Your task to perform on an android device: Add "corsair k70" to the cart on walmart Image 0: 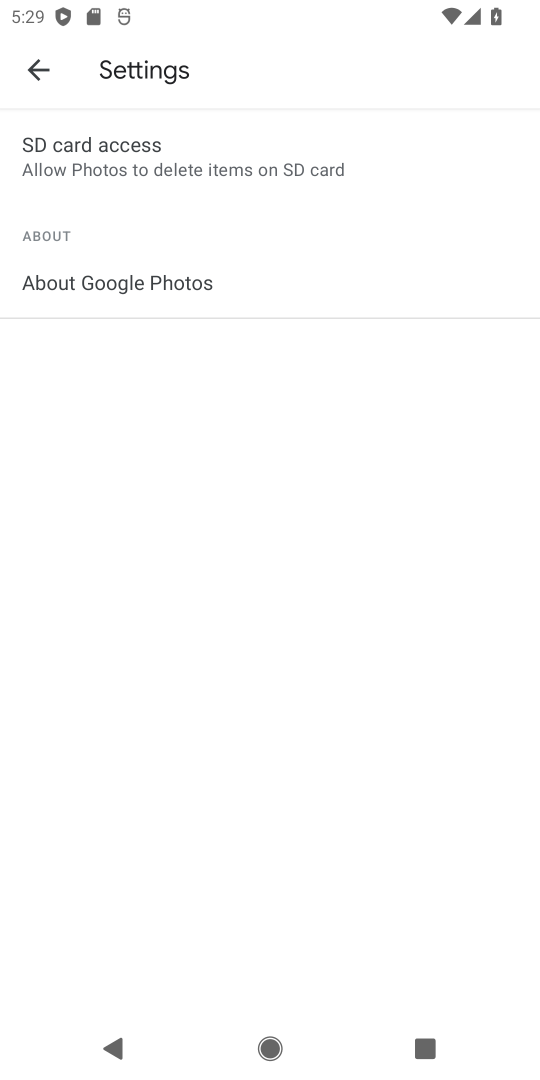
Step 0: press home button
Your task to perform on an android device: Add "corsair k70" to the cart on walmart Image 1: 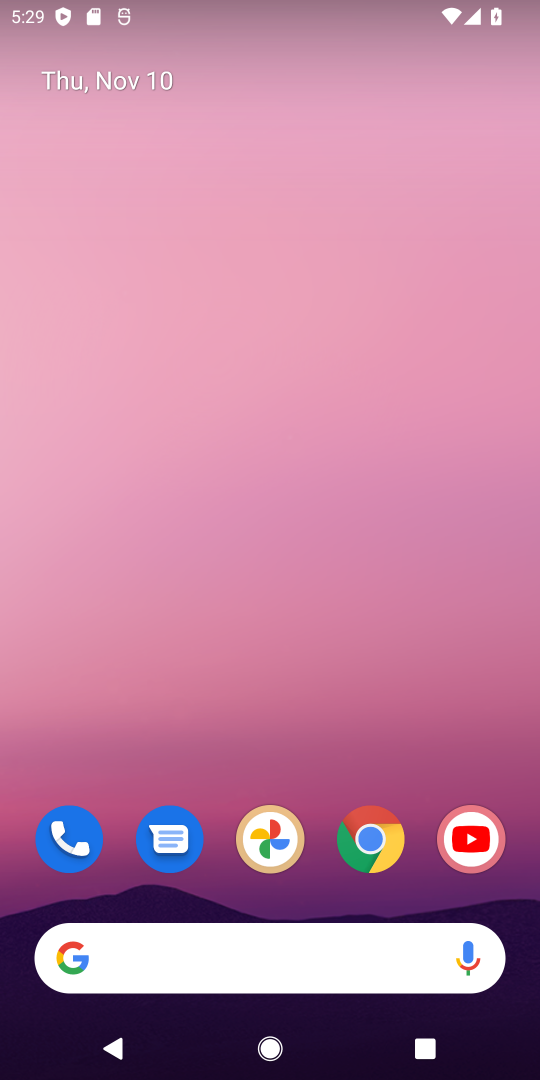
Step 1: click (370, 837)
Your task to perform on an android device: Add "corsair k70" to the cart on walmart Image 2: 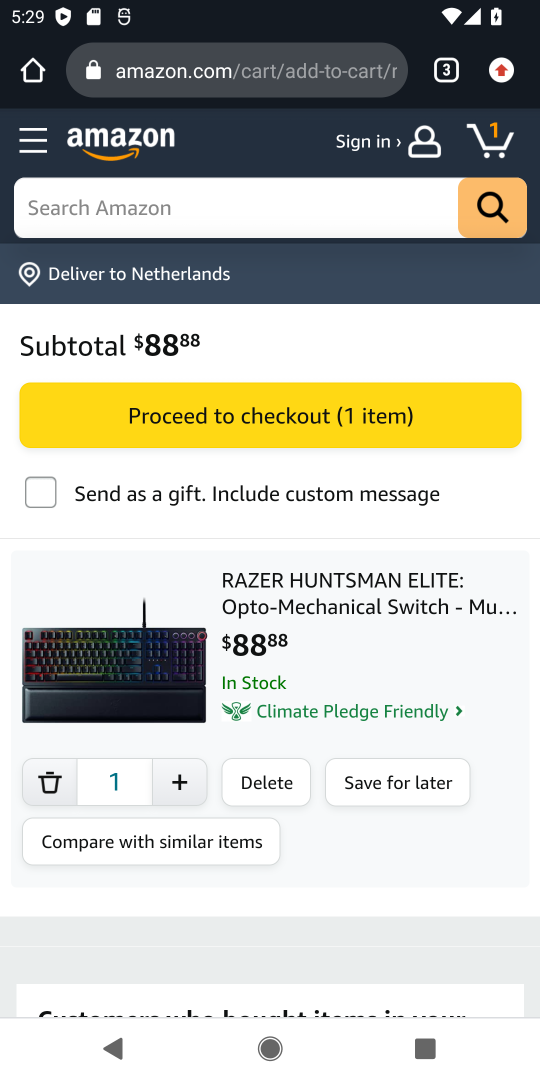
Step 2: click (445, 73)
Your task to perform on an android device: Add "corsair k70" to the cart on walmart Image 3: 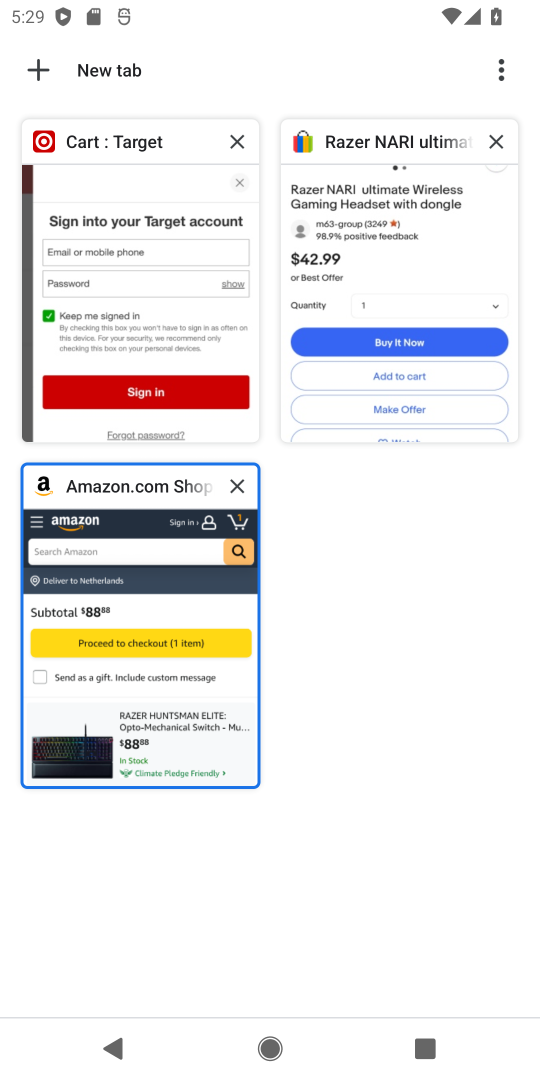
Step 3: click (36, 70)
Your task to perform on an android device: Add "corsair k70" to the cart on walmart Image 4: 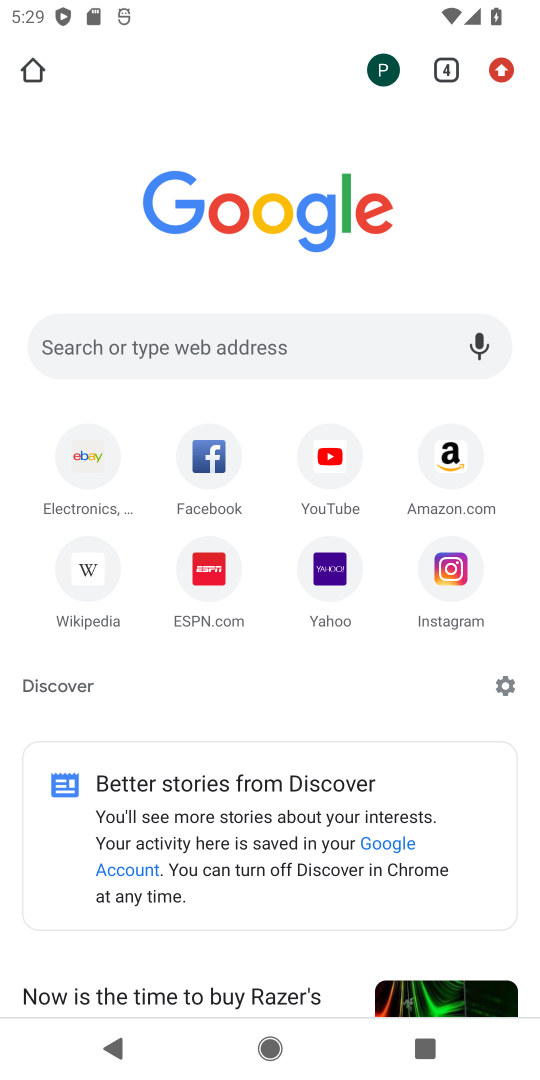
Step 4: click (199, 341)
Your task to perform on an android device: Add "corsair k70" to the cart on walmart Image 5: 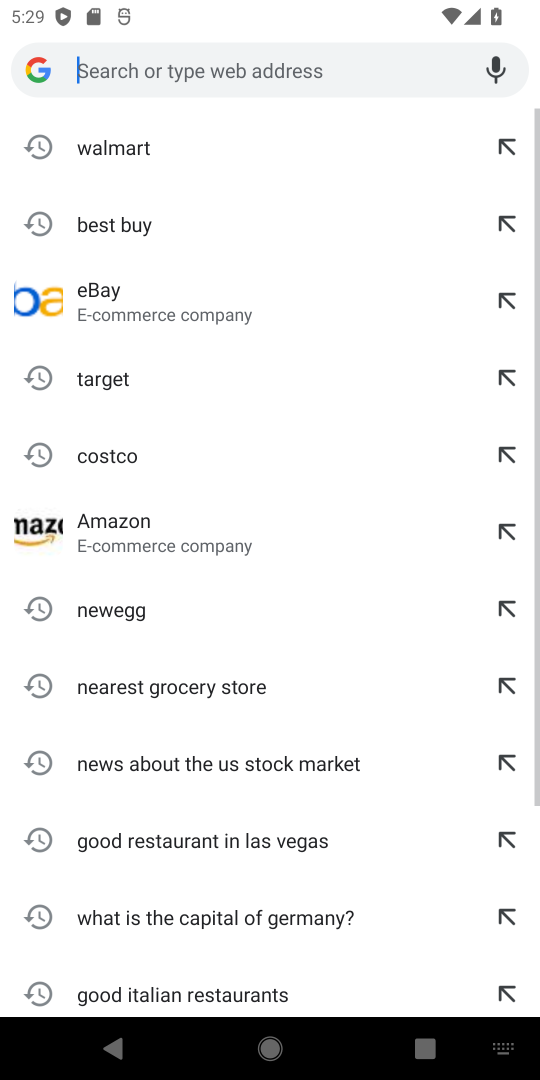
Step 5: click (123, 150)
Your task to perform on an android device: Add "corsair k70" to the cart on walmart Image 6: 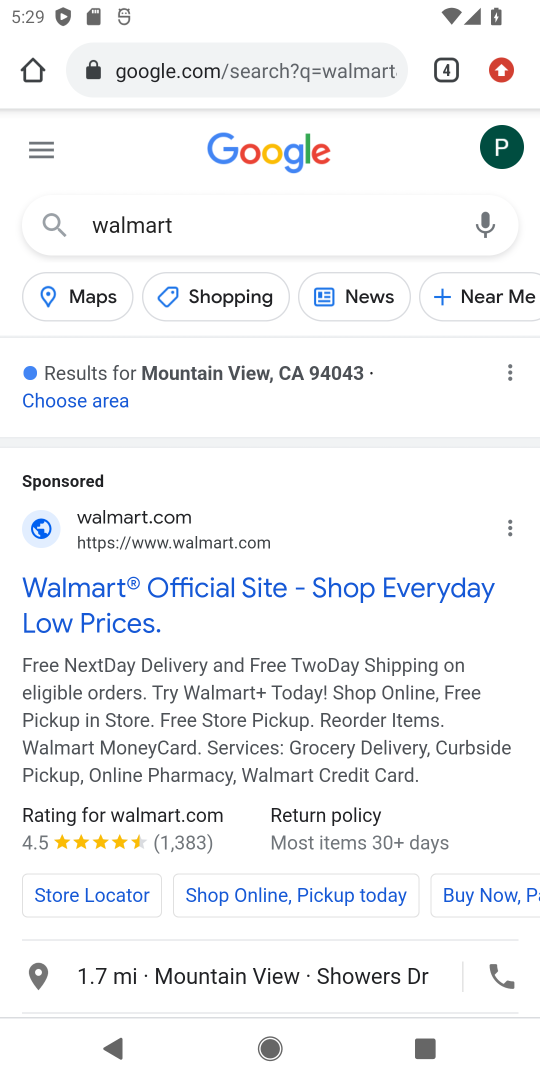
Step 6: click (102, 592)
Your task to perform on an android device: Add "corsair k70" to the cart on walmart Image 7: 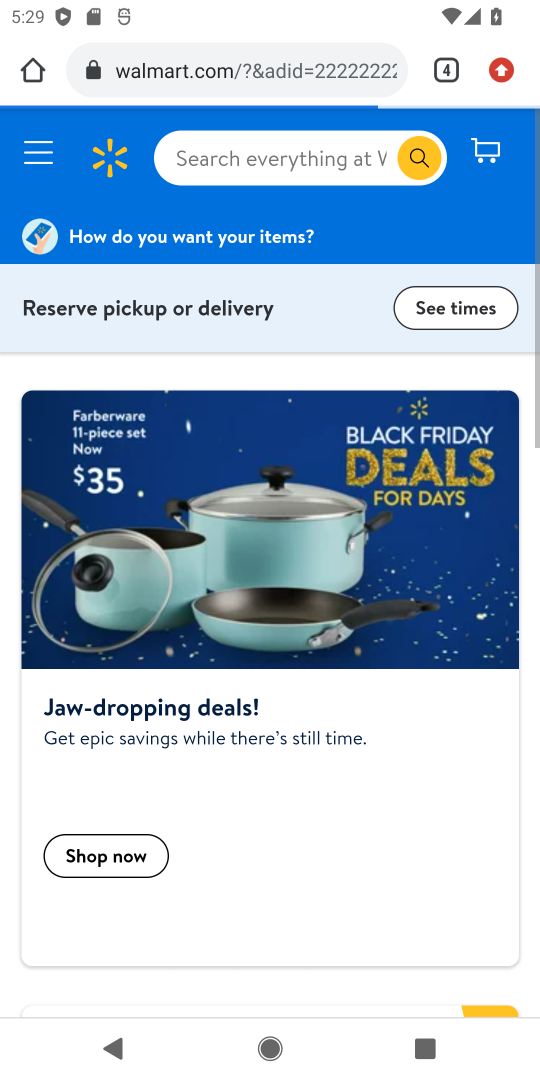
Step 7: click (209, 163)
Your task to perform on an android device: Add "corsair k70" to the cart on walmart Image 8: 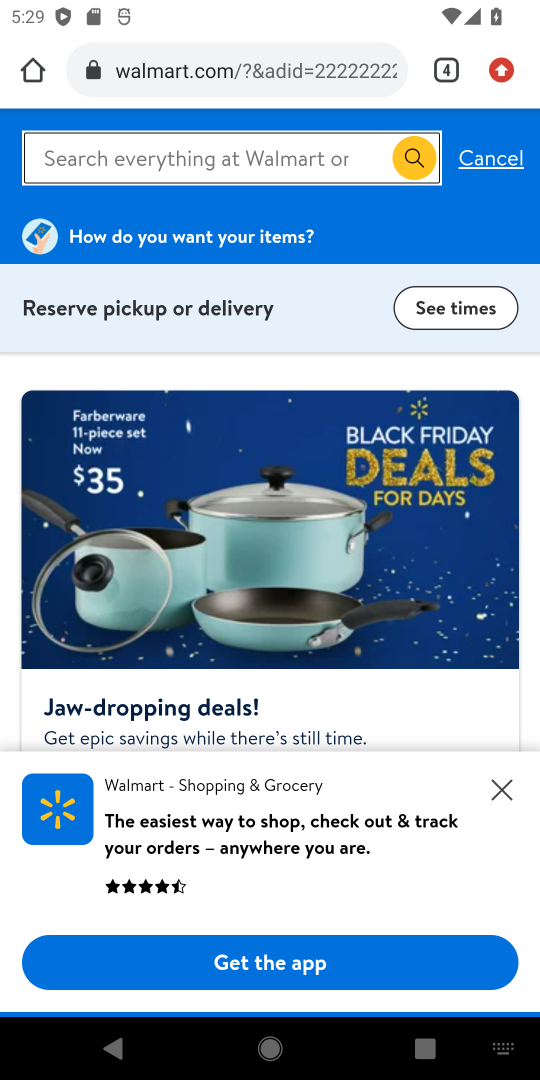
Step 8: type "corsair k70"
Your task to perform on an android device: Add "corsair k70" to the cart on walmart Image 9: 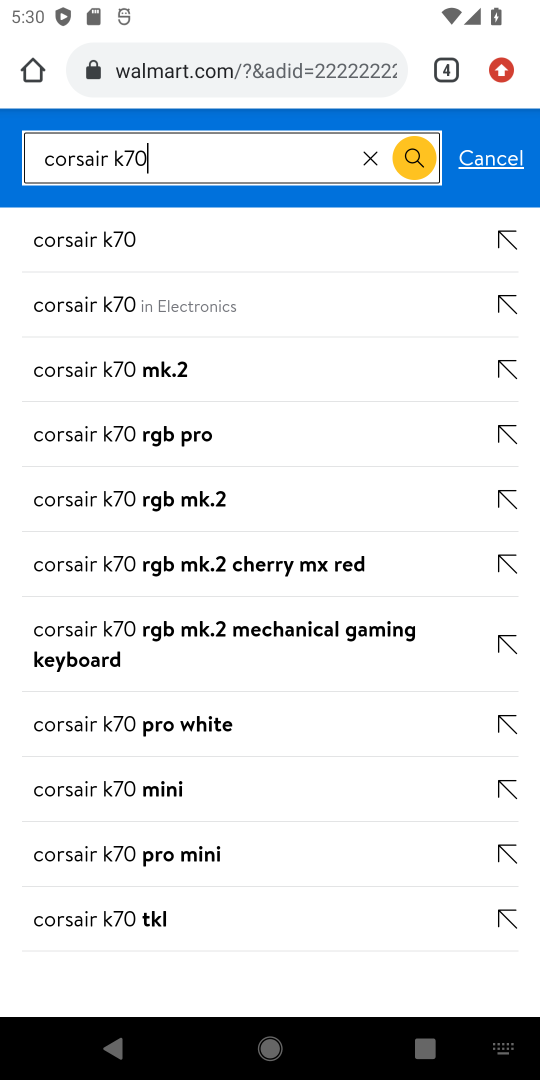
Step 9: click (112, 294)
Your task to perform on an android device: Add "corsair k70" to the cart on walmart Image 10: 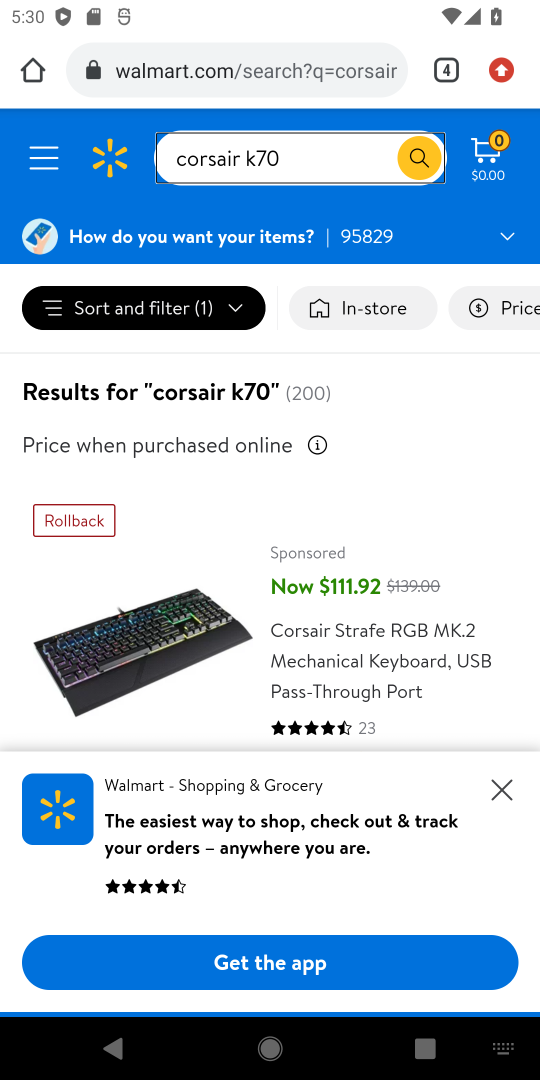
Step 10: click (499, 793)
Your task to perform on an android device: Add "corsair k70" to the cart on walmart Image 11: 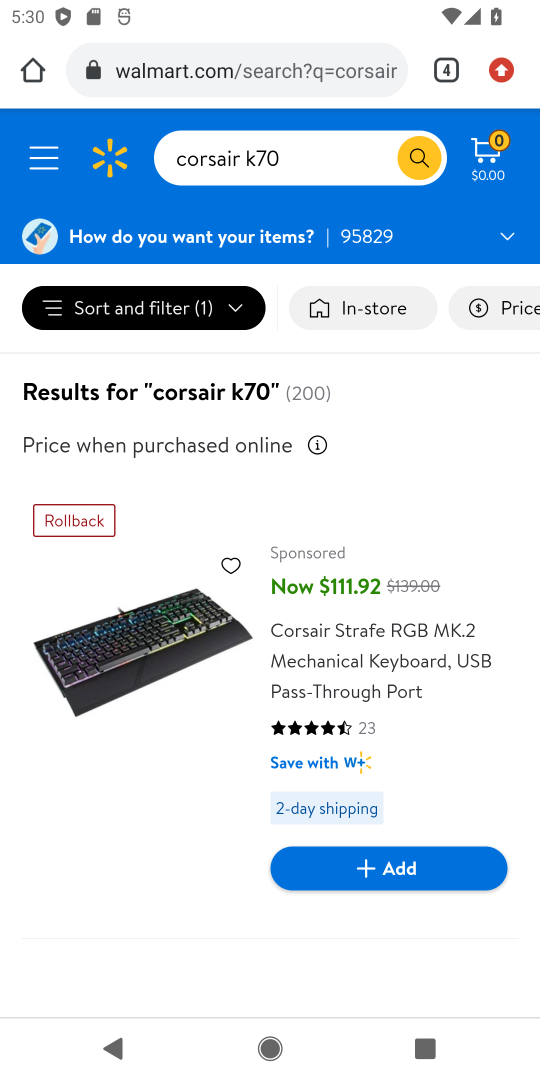
Step 11: drag from (499, 793) to (521, 364)
Your task to perform on an android device: Add "corsair k70" to the cart on walmart Image 12: 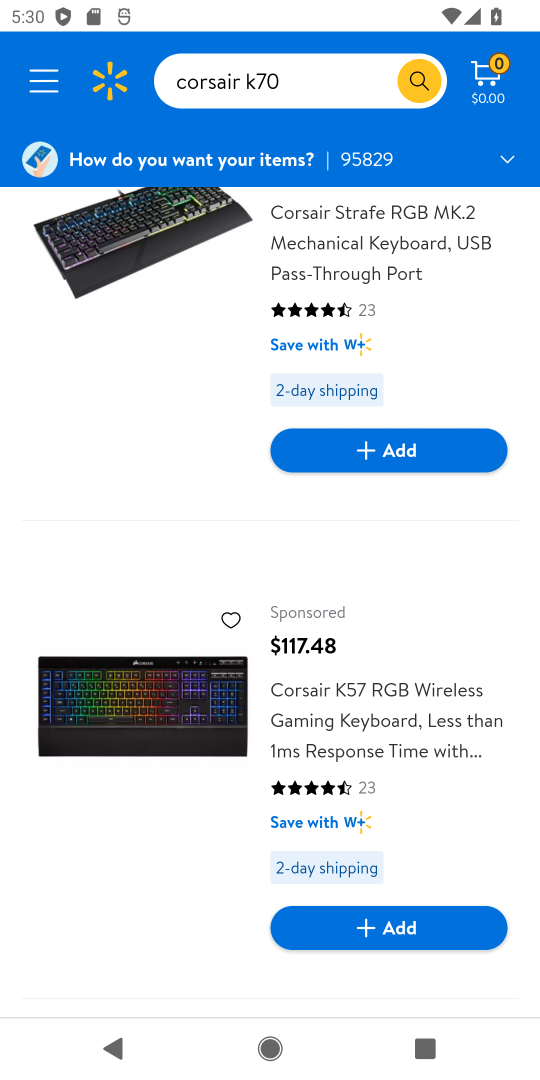
Step 12: drag from (399, 783) to (474, 186)
Your task to perform on an android device: Add "corsair k70" to the cart on walmart Image 13: 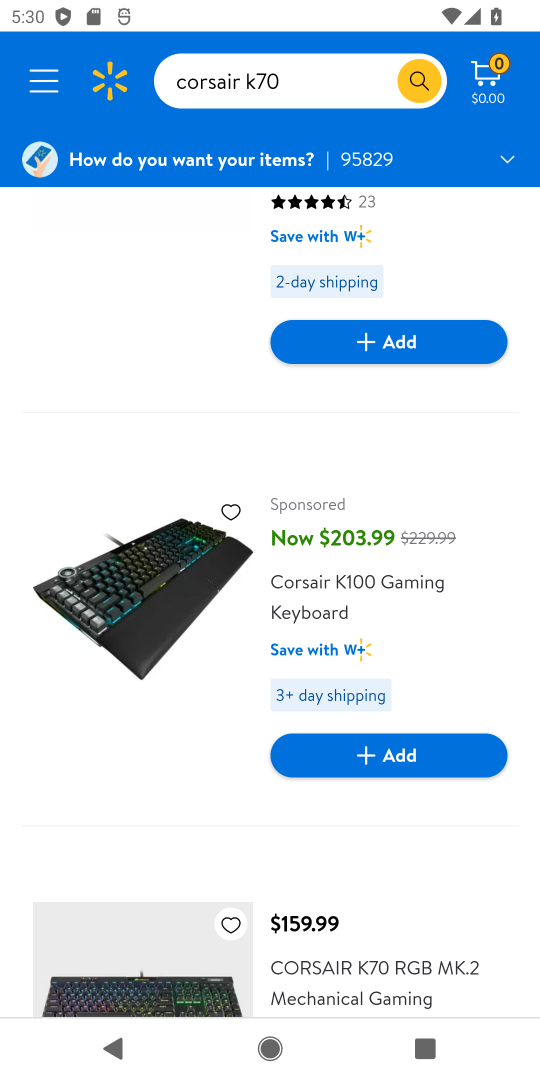
Step 13: drag from (385, 902) to (432, 356)
Your task to perform on an android device: Add "corsair k70" to the cart on walmart Image 14: 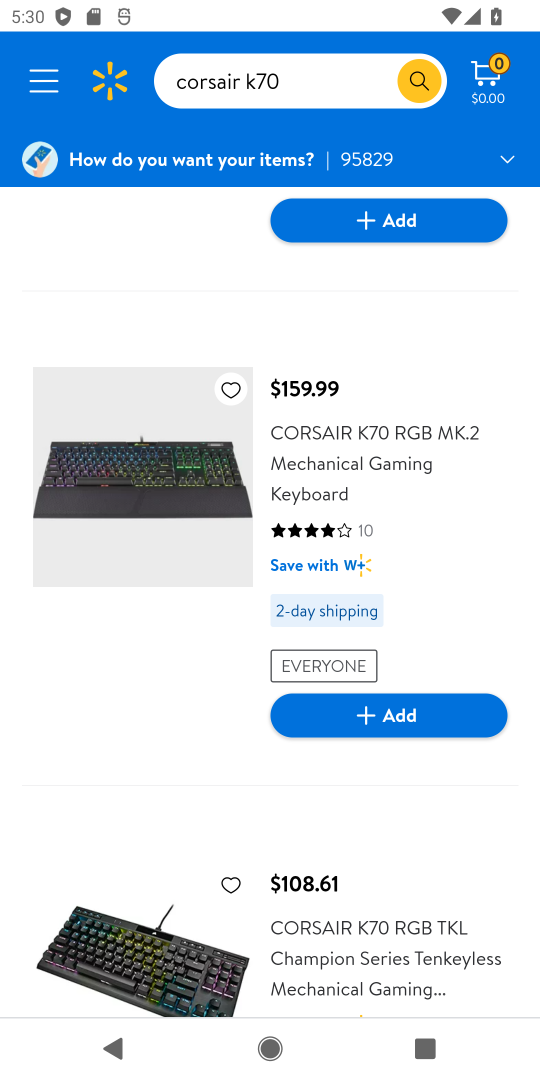
Step 14: click (427, 727)
Your task to perform on an android device: Add "corsair k70" to the cart on walmart Image 15: 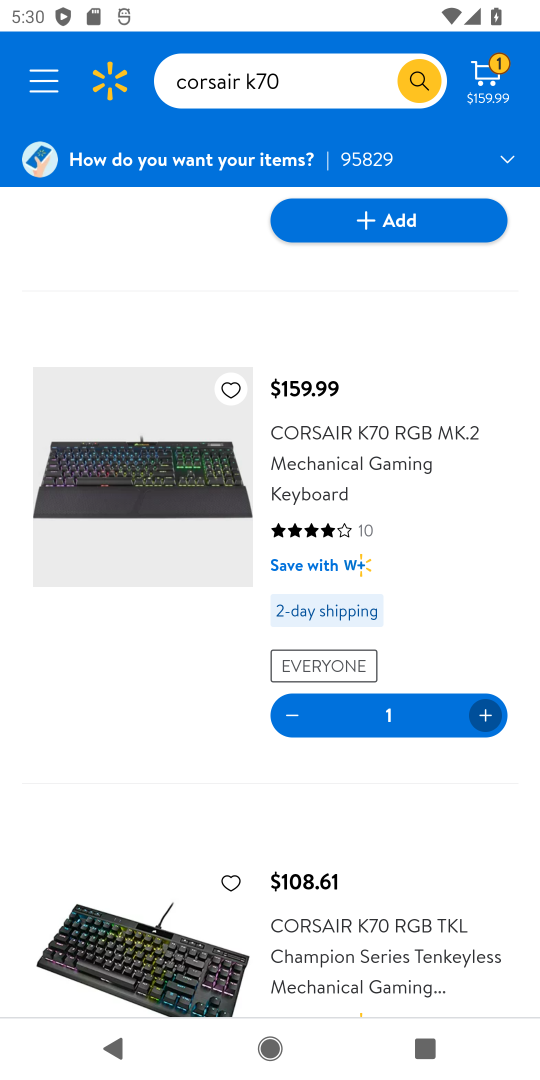
Step 15: task complete